Your task to perform on an android device: toggle improve location accuracy Image 0: 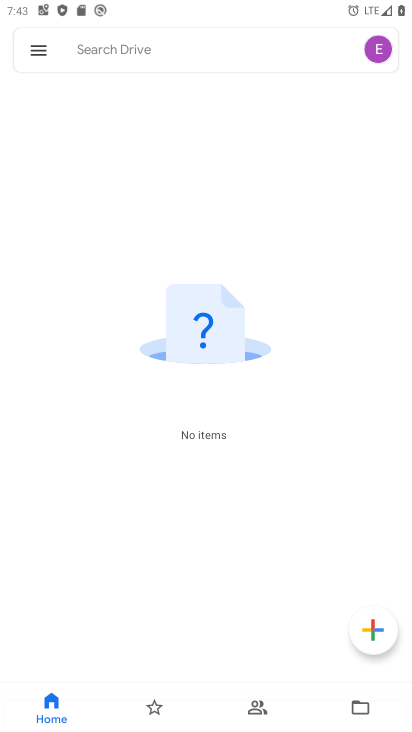
Step 0: press home button
Your task to perform on an android device: toggle improve location accuracy Image 1: 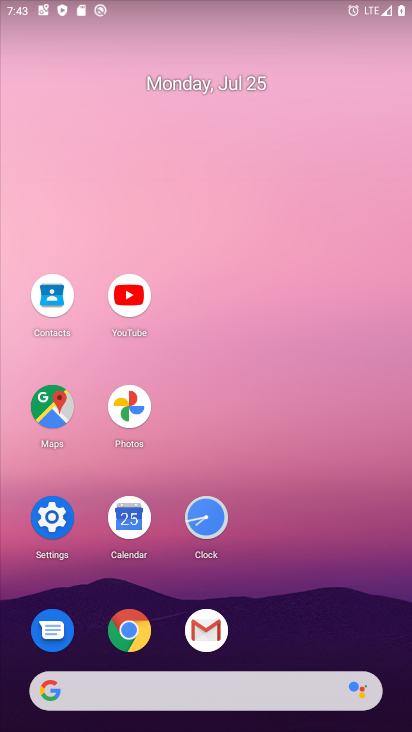
Step 1: click (50, 509)
Your task to perform on an android device: toggle improve location accuracy Image 2: 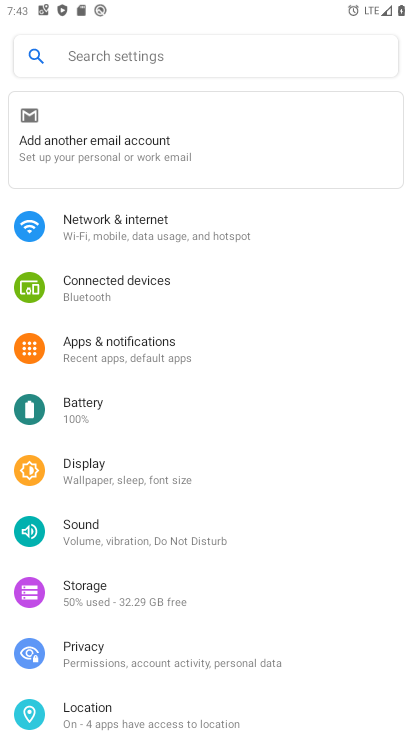
Step 2: click (87, 706)
Your task to perform on an android device: toggle improve location accuracy Image 3: 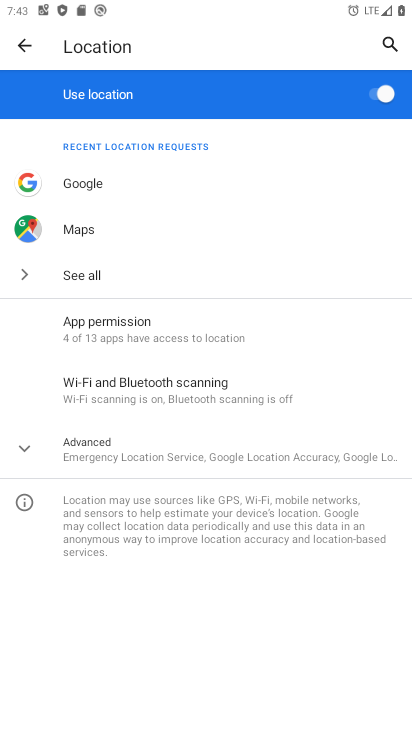
Step 3: click (23, 445)
Your task to perform on an android device: toggle improve location accuracy Image 4: 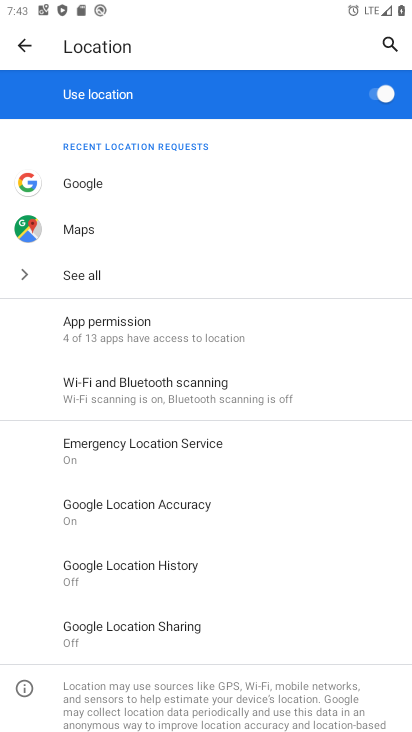
Step 4: click (153, 500)
Your task to perform on an android device: toggle improve location accuracy Image 5: 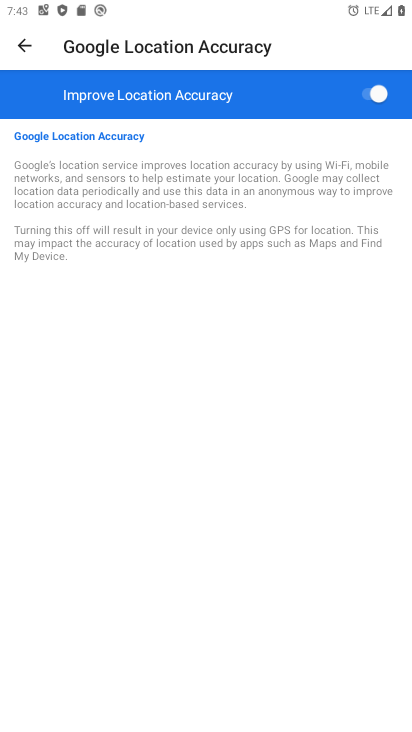
Step 5: click (376, 92)
Your task to perform on an android device: toggle improve location accuracy Image 6: 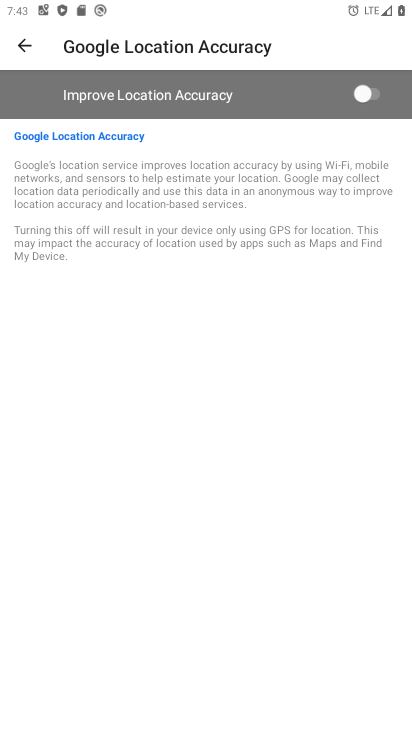
Step 6: task complete